Your task to perform on an android device: Open Google Image 0: 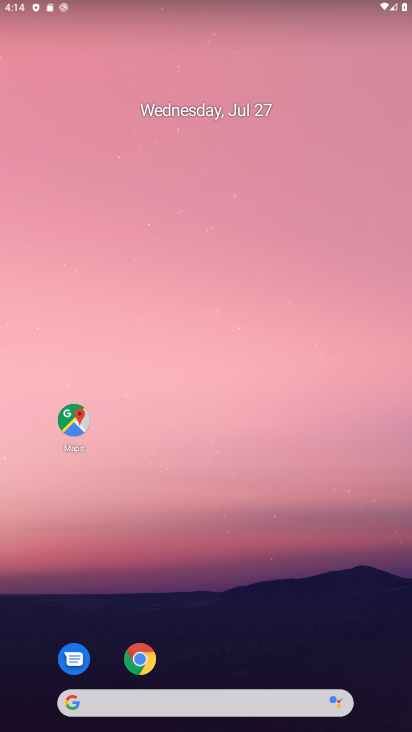
Step 0: press home button
Your task to perform on an android device: Open Google Image 1: 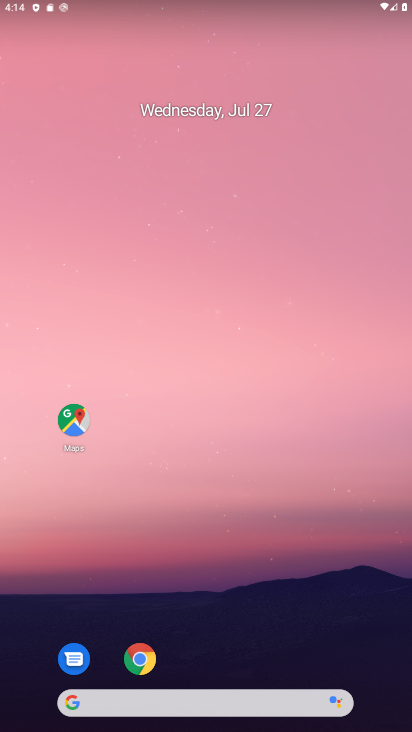
Step 1: drag from (311, 685) to (348, 276)
Your task to perform on an android device: Open Google Image 2: 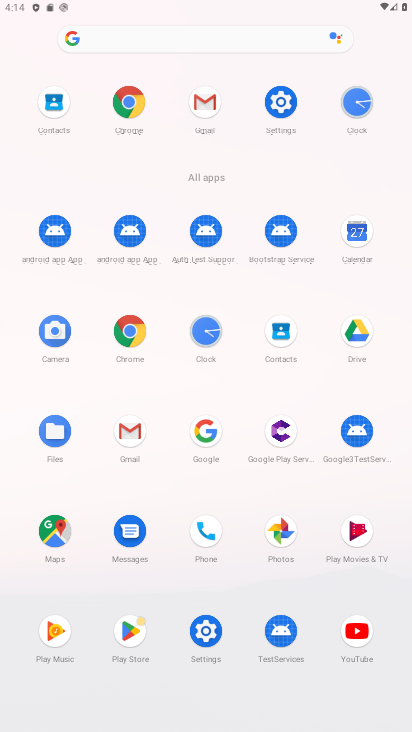
Step 2: click (210, 431)
Your task to perform on an android device: Open Google Image 3: 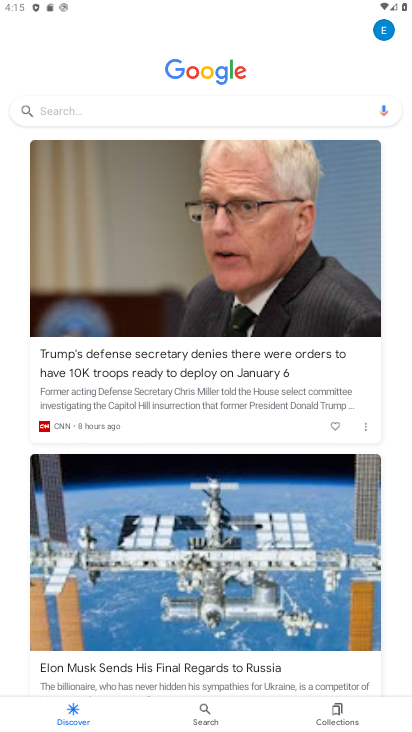
Step 3: task complete